Your task to perform on an android device: see tabs open on other devices in the chrome app Image 0: 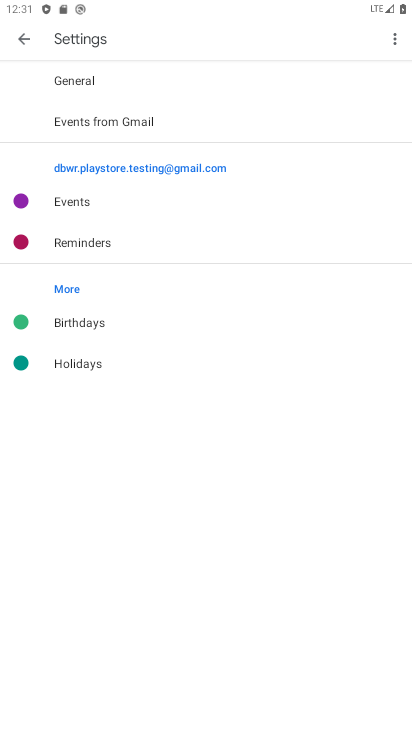
Step 0: press home button
Your task to perform on an android device: see tabs open on other devices in the chrome app Image 1: 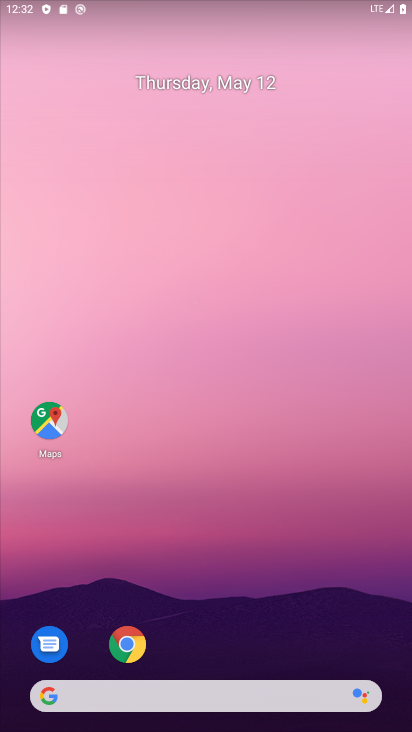
Step 1: click (133, 642)
Your task to perform on an android device: see tabs open on other devices in the chrome app Image 2: 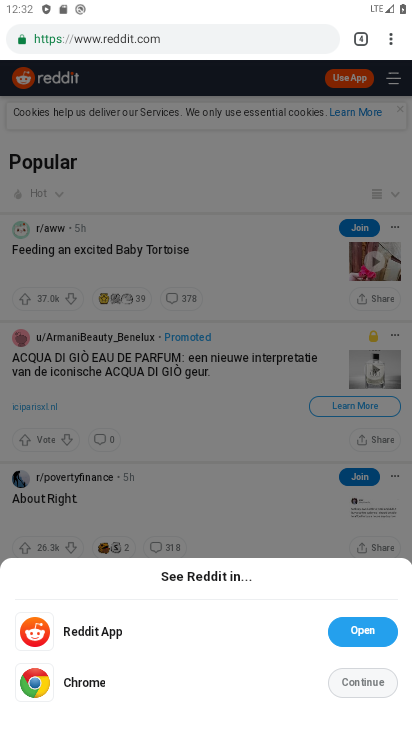
Step 2: click (392, 40)
Your task to perform on an android device: see tabs open on other devices in the chrome app Image 3: 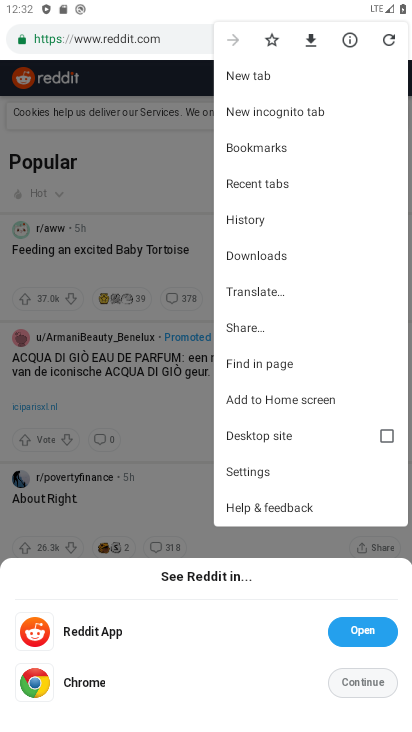
Step 3: click (276, 173)
Your task to perform on an android device: see tabs open on other devices in the chrome app Image 4: 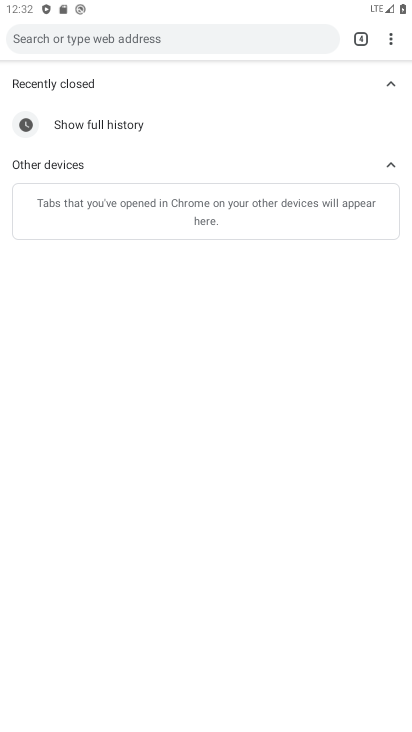
Step 4: task complete